Your task to perform on an android device: Set the phone to "Do not disturb". Image 0: 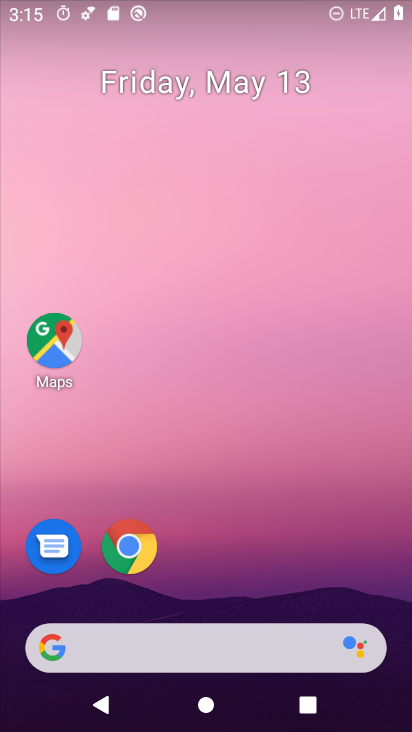
Step 0: click (219, 209)
Your task to perform on an android device: Set the phone to "Do not disturb". Image 1: 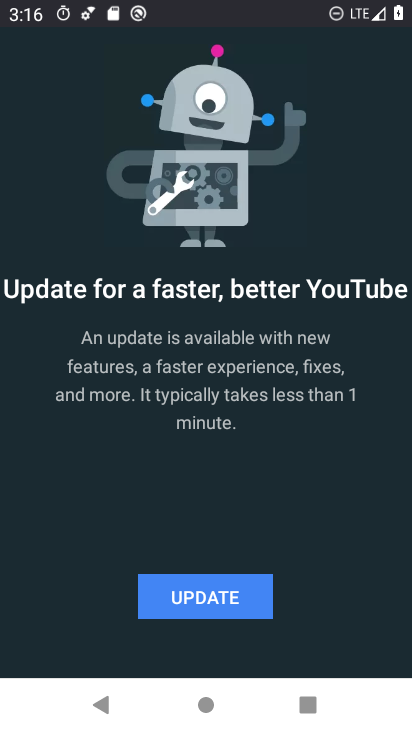
Step 1: task complete